Your task to perform on an android device: move a message to another label in the gmail app Image 0: 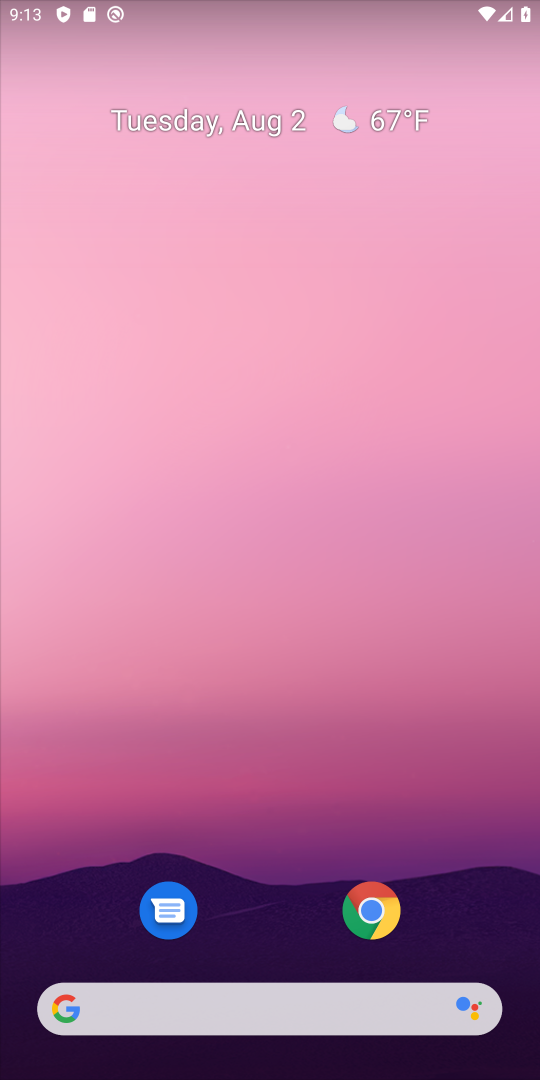
Step 0: drag from (288, 937) to (354, 377)
Your task to perform on an android device: move a message to another label in the gmail app Image 1: 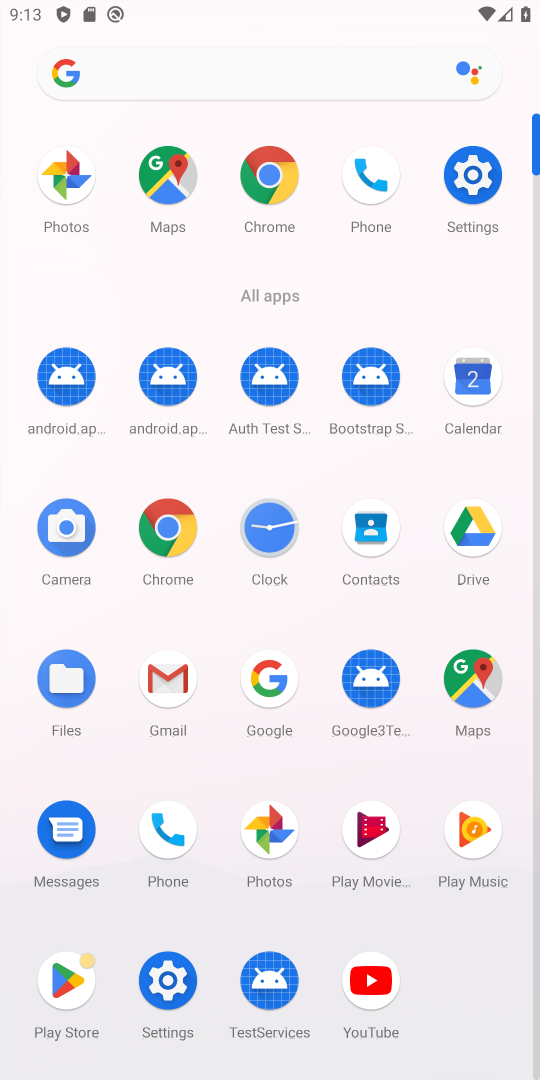
Step 1: click (168, 662)
Your task to perform on an android device: move a message to another label in the gmail app Image 2: 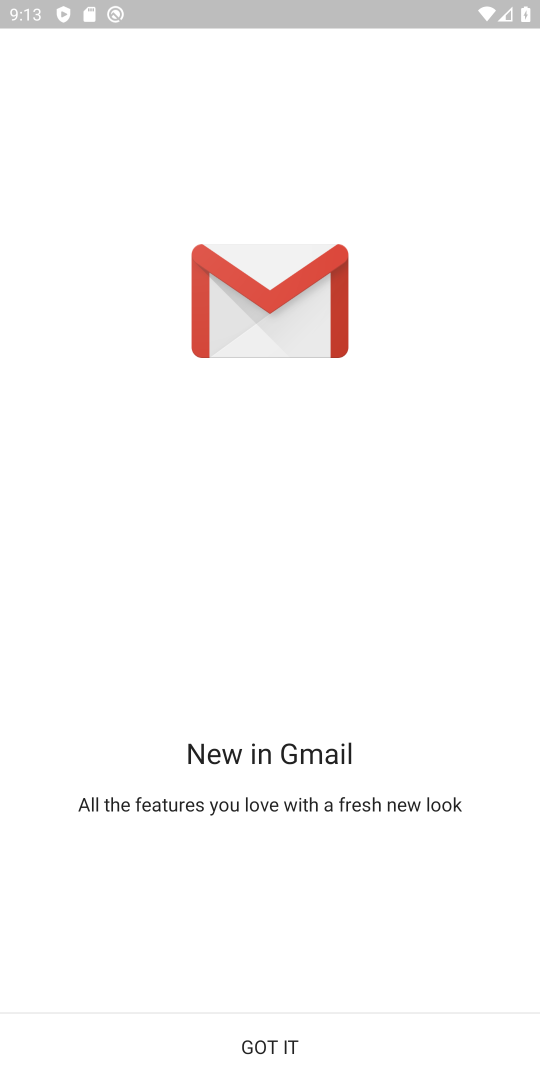
Step 2: click (254, 1031)
Your task to perform on an android device: move a message to another label in the gmail app Image 3: 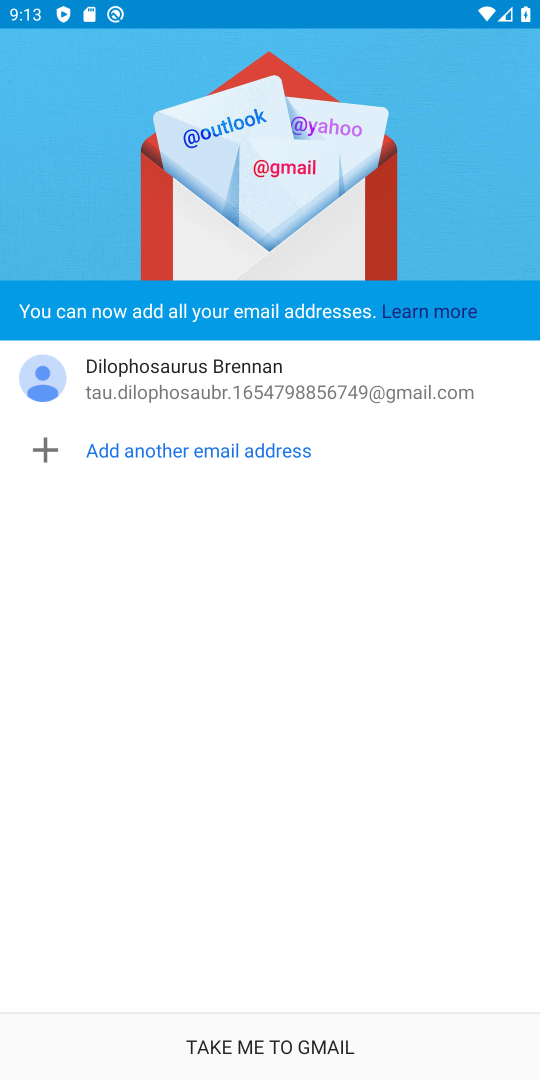
Step 3: click (289, 1047)
Your task to perform on an android device: move a message to another label in the gmail app Image 4: 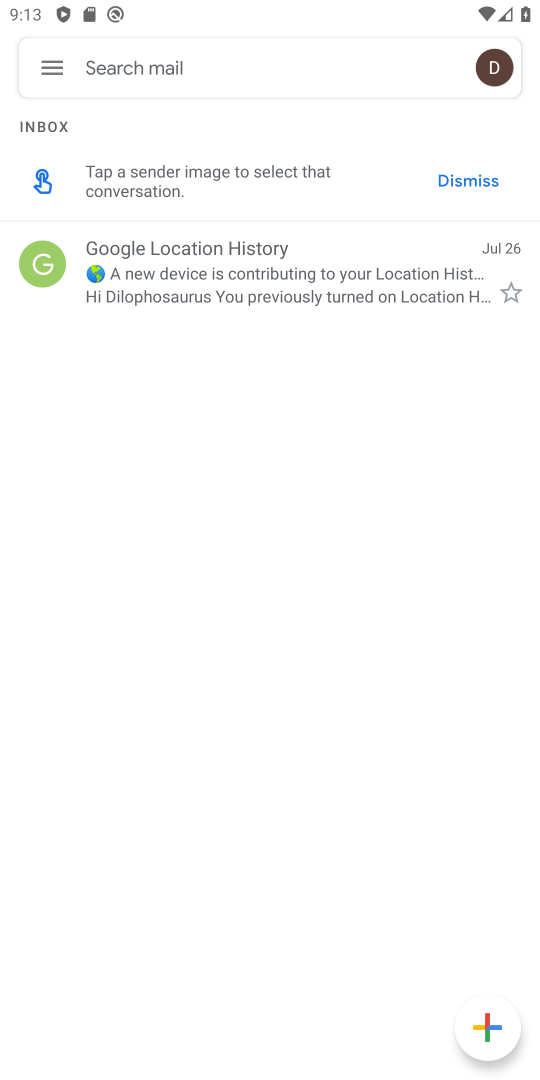
Step 4: click (192, 263)
Your task to perform on an android device: move a message to another label in the gmail app Image 5: 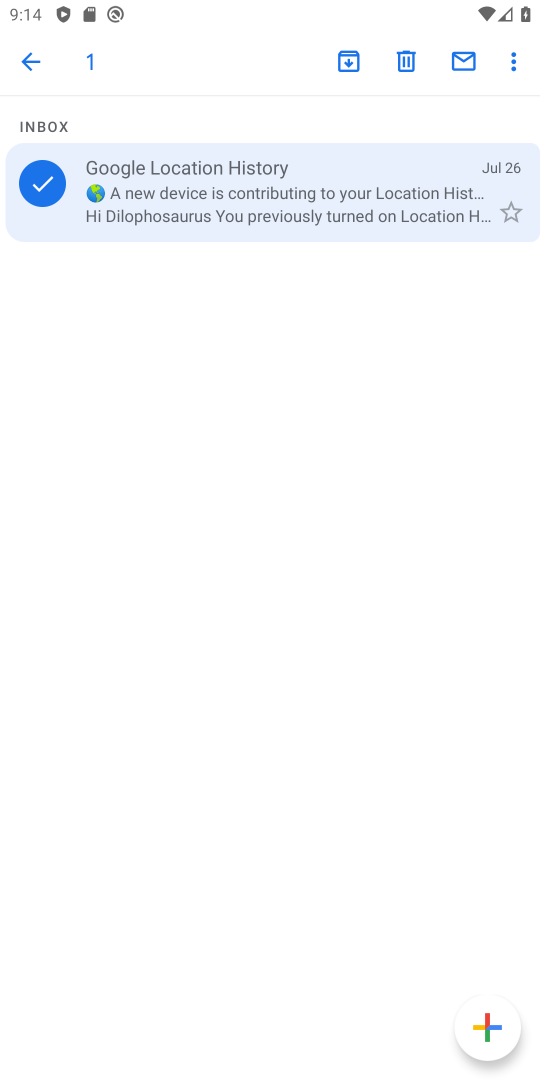
Step 5: click (518, 60)
Your task to perform on an android device: move a message to another label in the gmail app Image 6: 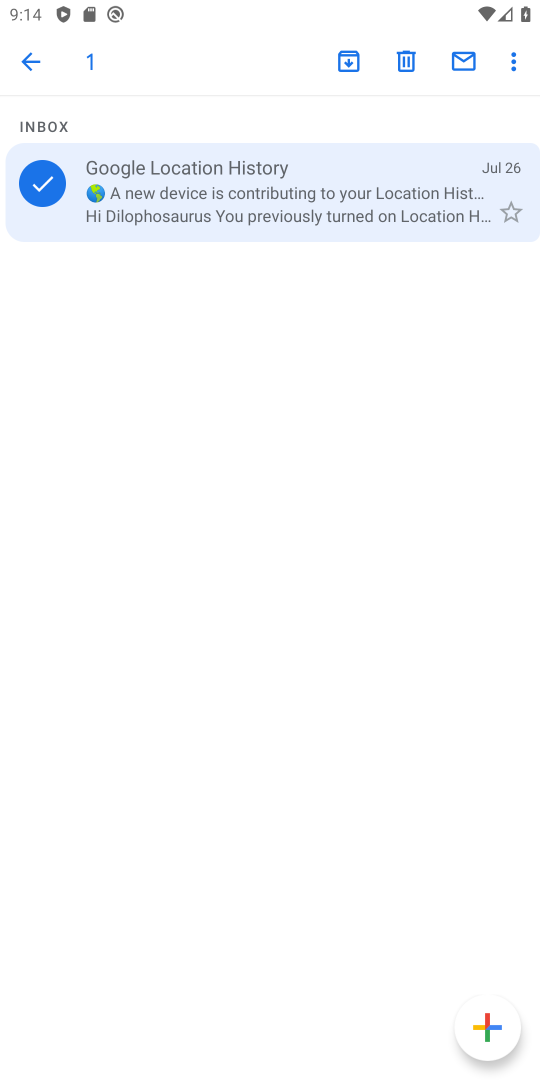
Step 6: click (518, 57)
Your task to perform on an android device: move a message to another label in the gmail app Image 7: 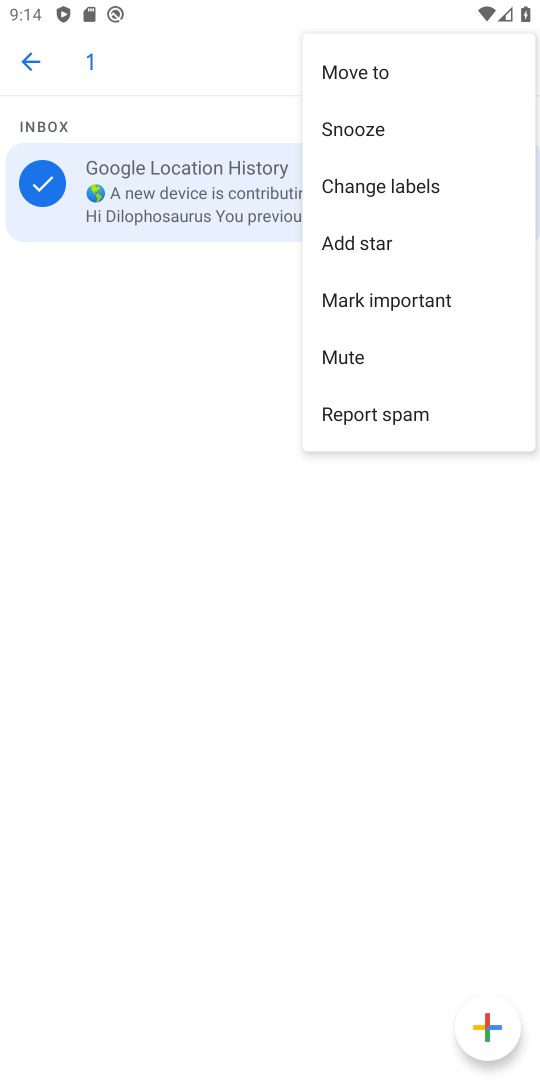
Step 7: click (386, 71)
Your task to perform on an android device: move a message to another label in the gmail app Image 8: 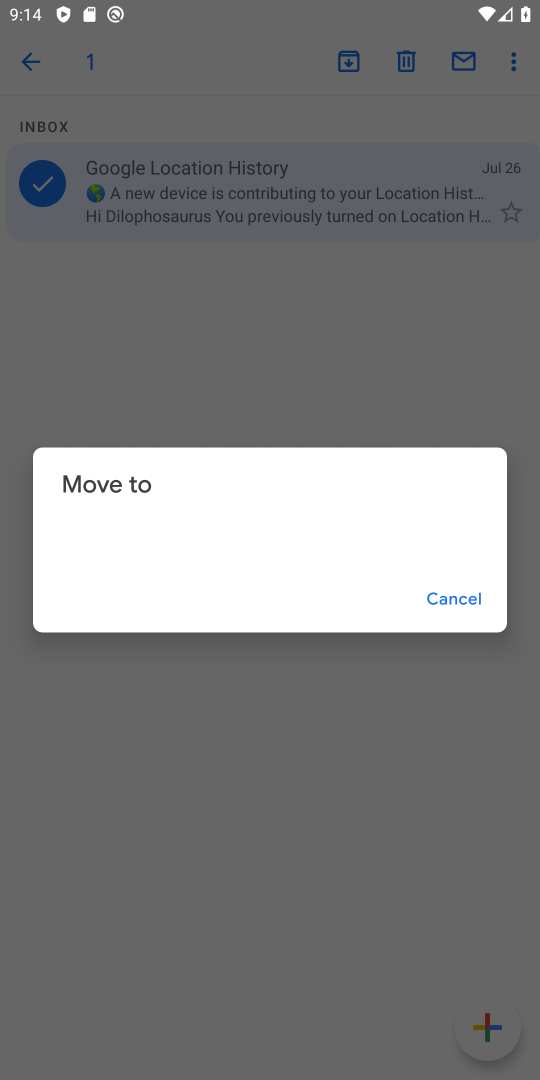
Step 8: click (226, 523)
Your task to perform on an android device: move a message to another label in the gmail app Image 9: 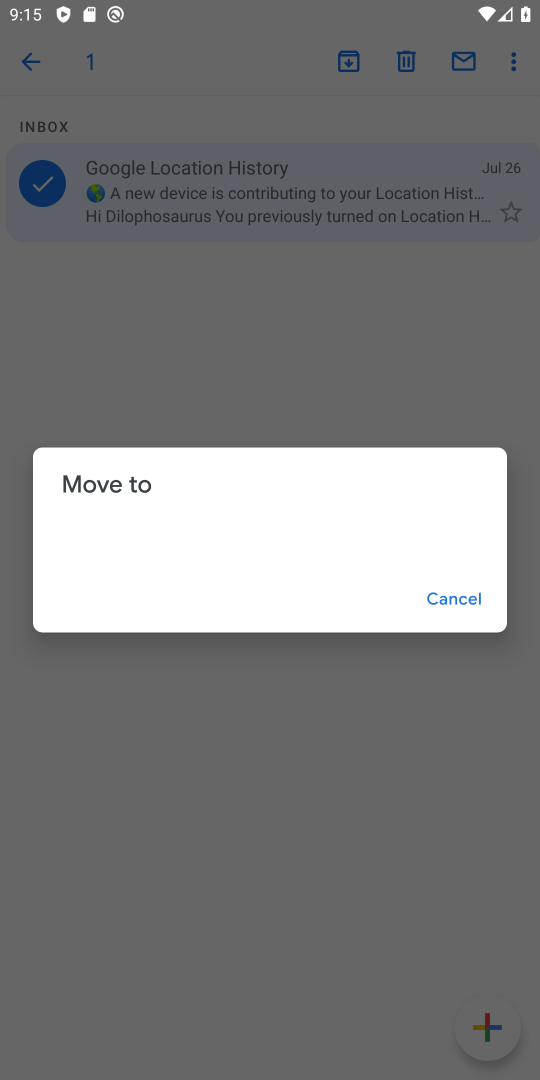
Step 9: task complete